Your task to perform on an android device: turn notification dots off Image 0: 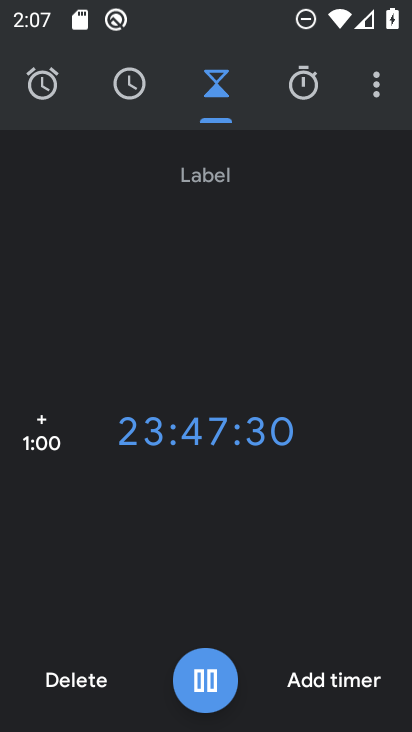
Step 0: press home button
Your task to perform on an android device: turn notification dots off Image 1: 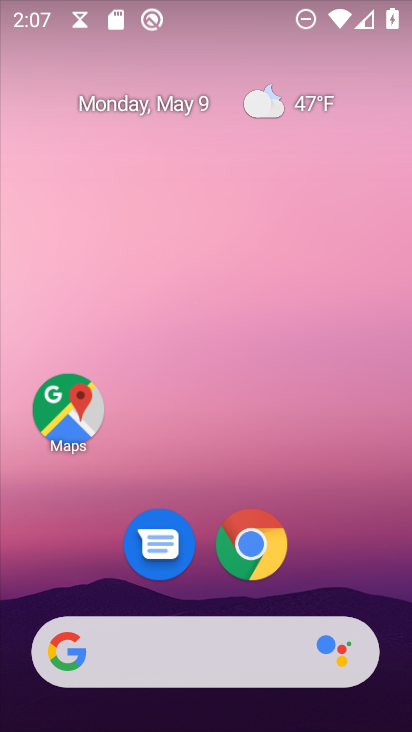
Step 1: drag from (354, 533) to (384, 118)
Your task to perform on an android device: turn notification dots off Image 2: 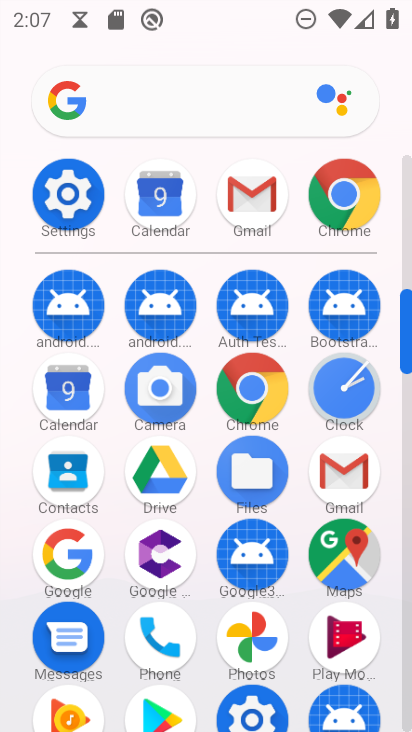
Step 2: click (71, 179)
Your task to perform on an android device: turn notification dots off Image 3: 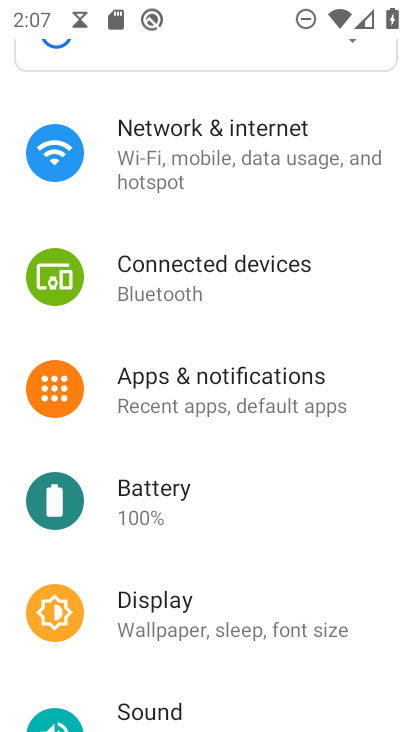
Step 3: click (250, 412)
Your task to perform on an android device: turn notification dots off Image 4: 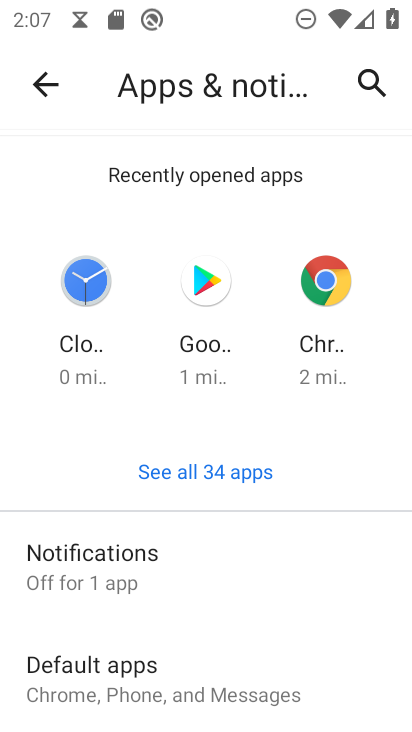
Step 4: click (125, 564)
Your task to perform on an android device: turn notification dots off Image 5: 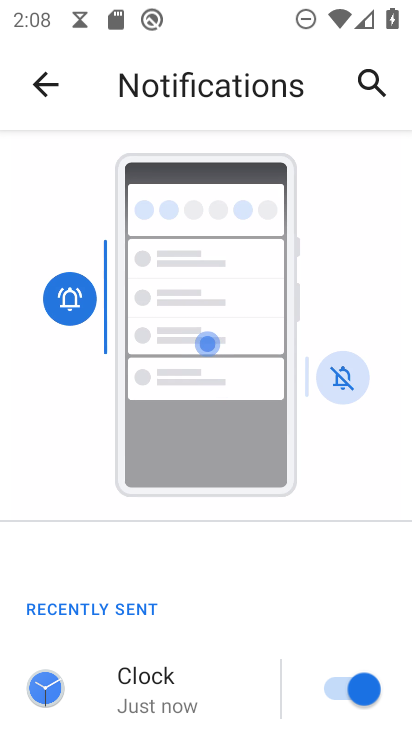
Step 5: drag from (243, 625) to (252, 406)
Your task to perform on an android device: turn notification dots off Image 6: 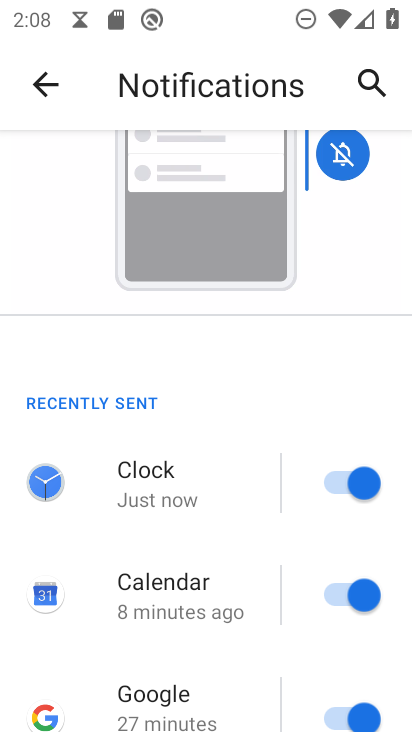
Step 6: drag from (200, 608) to (167, 259)
Your task to perform on an android device: turn notification dots off Image 7: 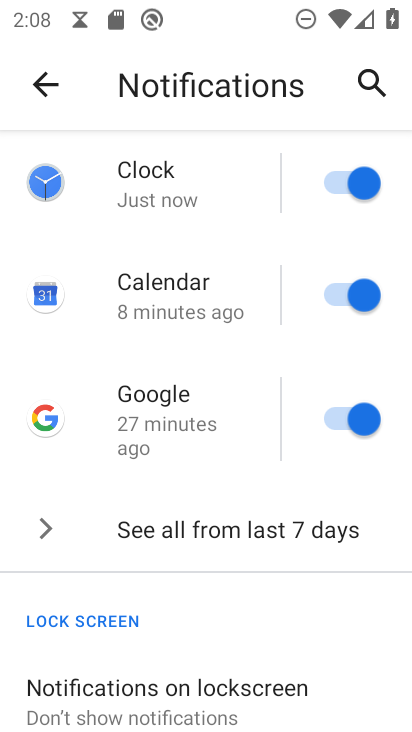
Step 7: drag from (161, 580) to (170, 280)
Your task to perform on an android device: turn notification dots off Image 8: 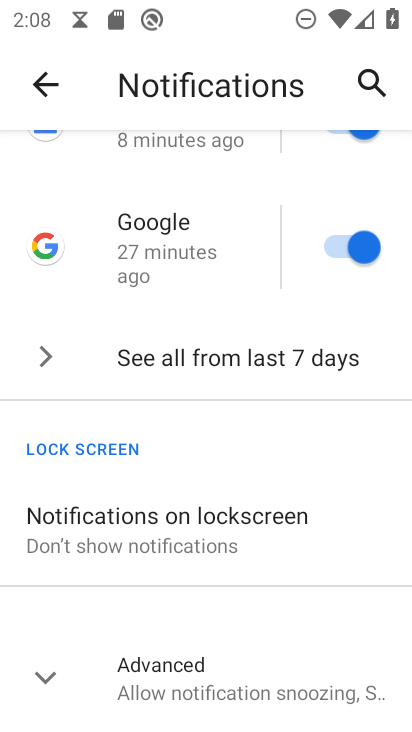
Step 8: click (205, 679)
Your task to perform on an android device: turn notification dots off Image 9: 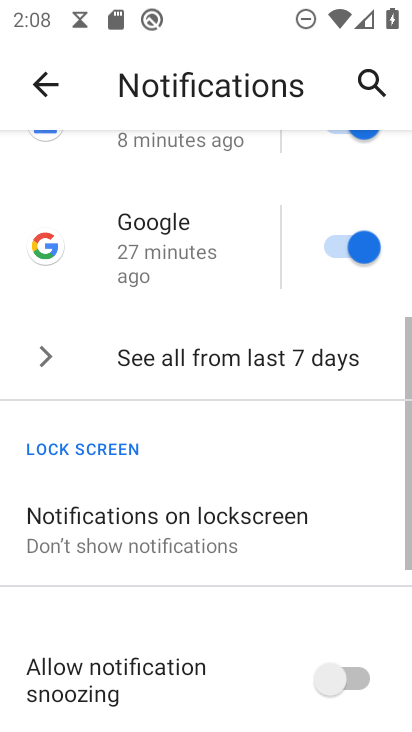
Step 9: task complete